Your task to perform on an android device: What is the recent news? Image 0: 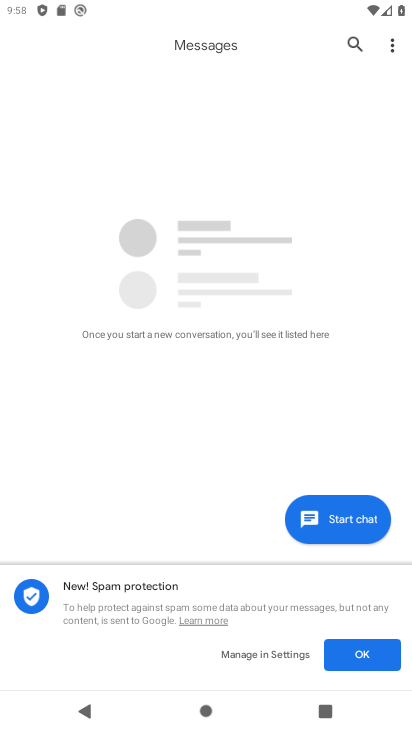
Step 0: press home button
Your task to perform on an android device: What is the recent news? Image 1: 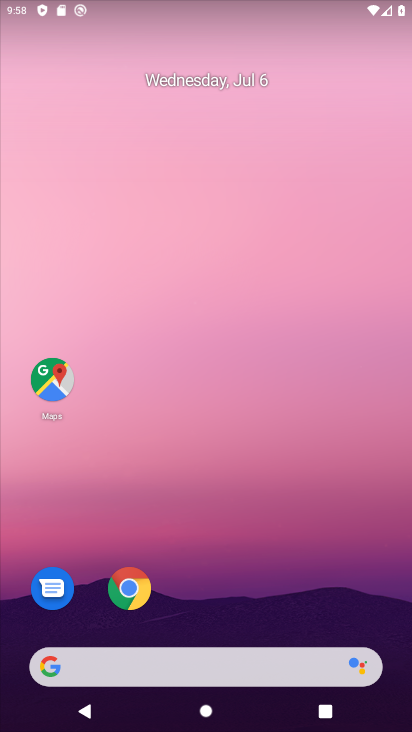
Step 1: drag from (271, 562) to (267, 196)
Your task to perform on an android device: What is the recent news? Image 2: 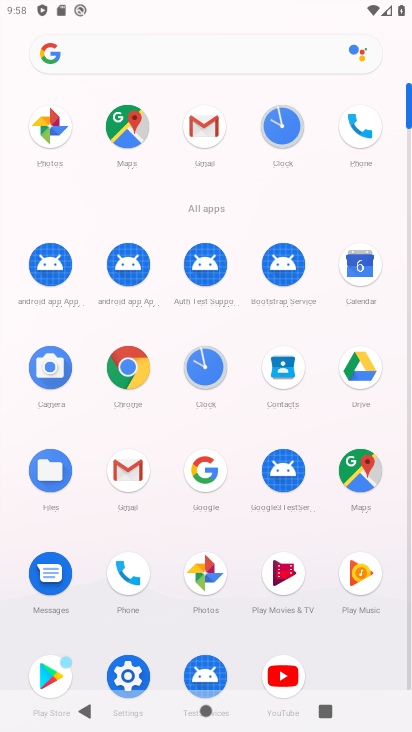
Step 2: click (131, 362)
Your task to perform on an android device: What is the recent news? Image 3: 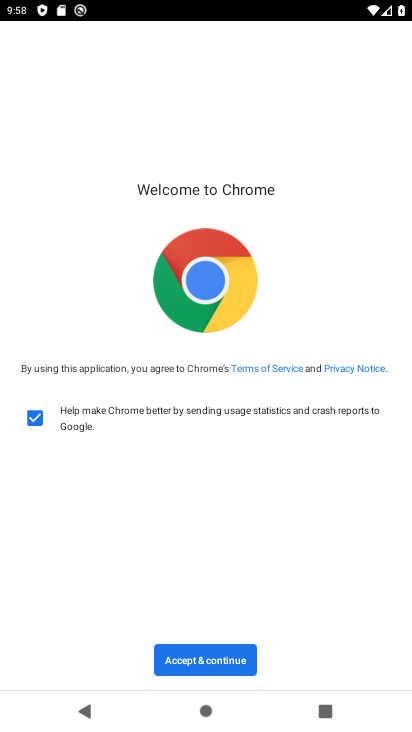
Step 3: click (200, 652)
Your task to perform on an android device: What is the recent news? Image 4: 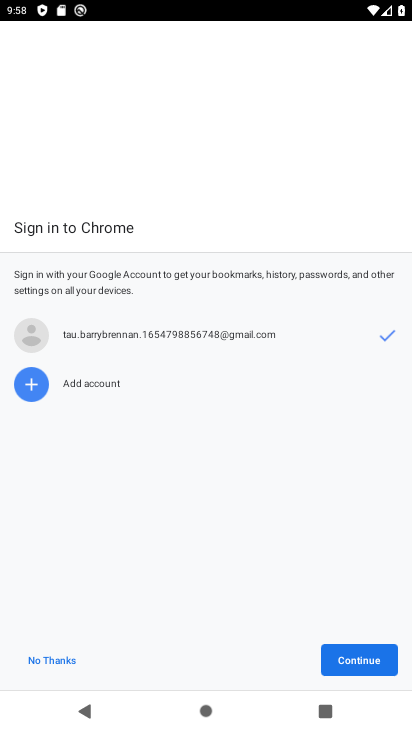
Step 4: click (359, 659)
Your task to perform on an android device: What is the recent news? Image 5: 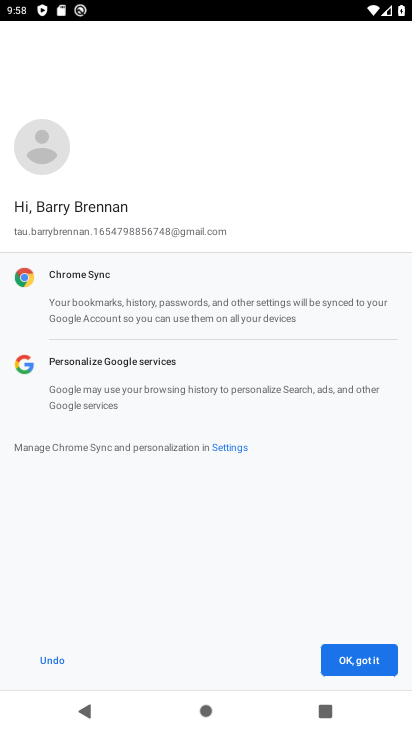
Step 5: click (343, 657)
Your task to perform on an android device: What is the recent news? Image 6: 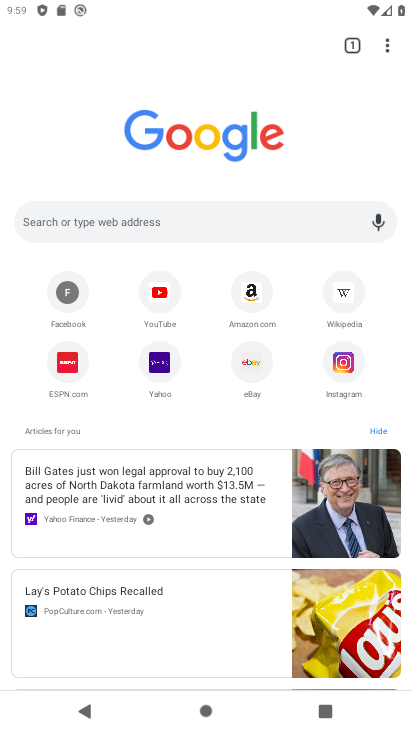
Step 6: click (211, 219)
Your task to perform on an android device: What is the recent news? Image 7: 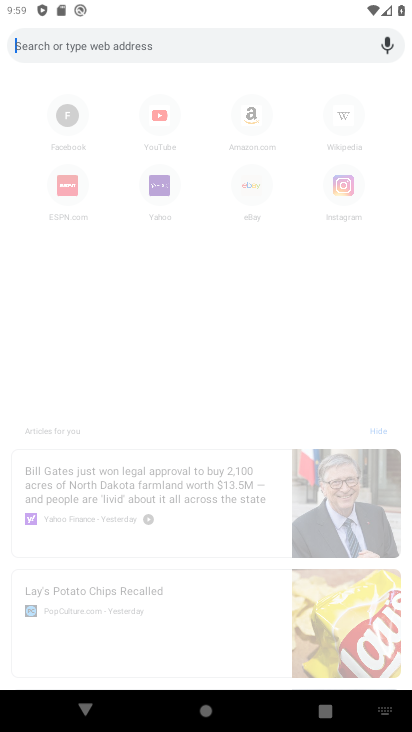
Step 7: type "What is the recent news "
Your task to perform on an android device: What is the recent news? Image 8: 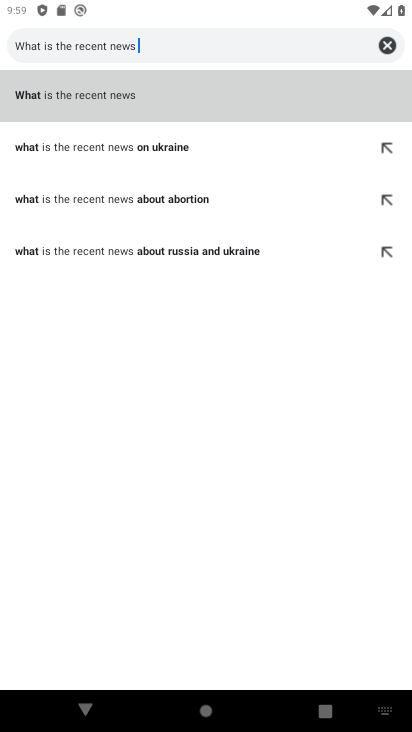
Step 8: click (168, 76)
Your task to perform on an android device: What is the recent news? Image 9: 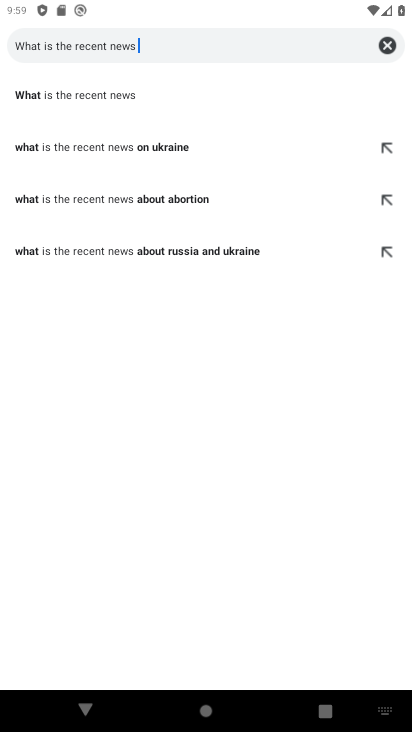
Step 9: click (104, 89)
Your task to perform on an android device: What is the recent news? Image 10: 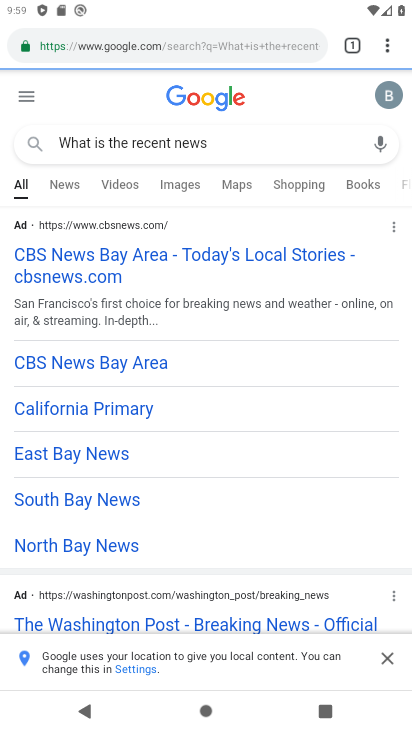
Step 10: task complete